Your task to perform on an android device: Go to wifi settings Image 0: 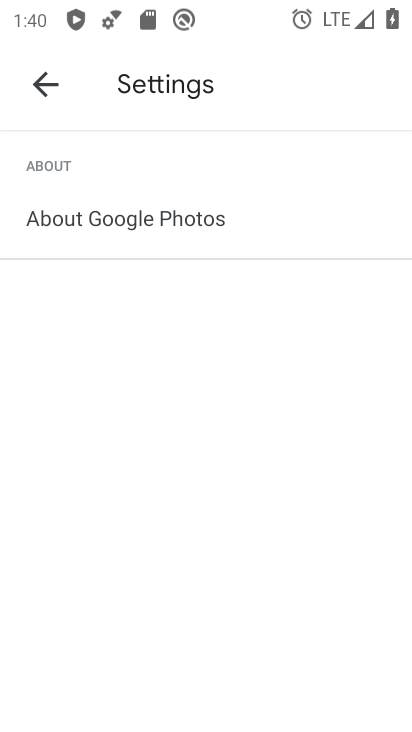
Step 0: press home button
Your task to perform on an android device: Go to wifi settings Image 1: 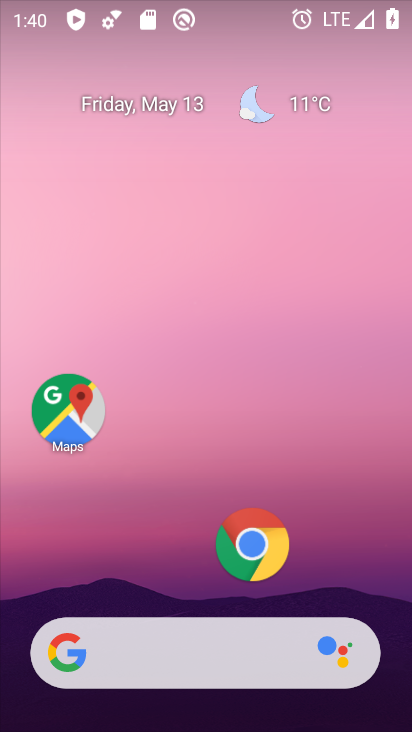
Step 1: drag from (180, 531) to (195, 181)
Your task to perform on an android device: Go to wifi settings Image 2: 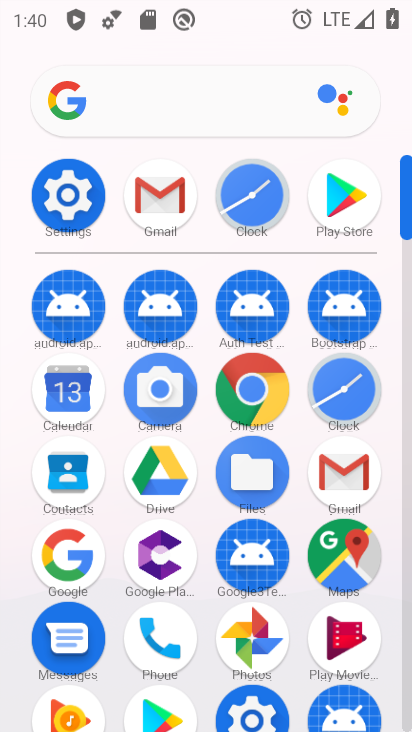
Step 2: click (69, 188)
Your task to perform on an android device: Go to wifi settings Image 3: 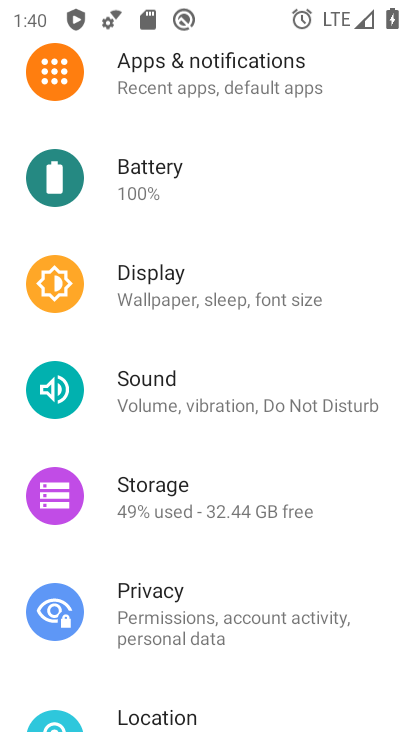
Step 3: drag from (294, 712) to (281, 421)
Your task to perform on an android device: Go to wifi settings Image 4: 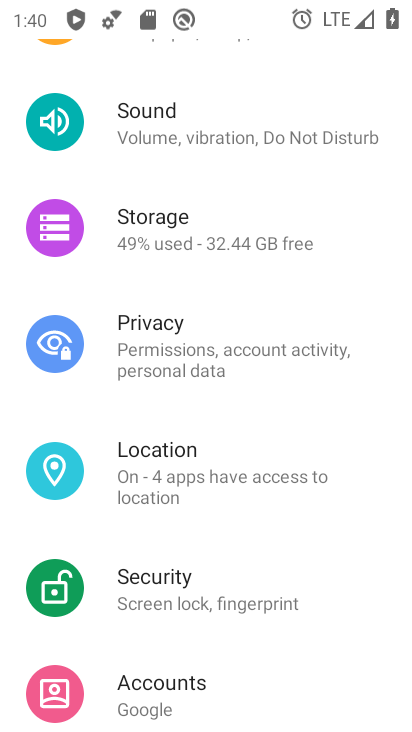
Step 4: drag from (231, 630) to (259, 302)
Your task to perform on an android device: Go to wifi settings Image 5: 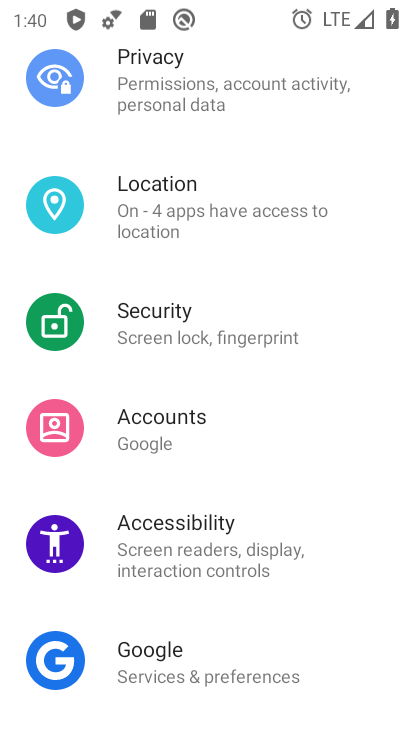
Step 5: drag from (226, 155) to (225, 646)
Your task to perform on an android device: Go to wifi settings Image 6: 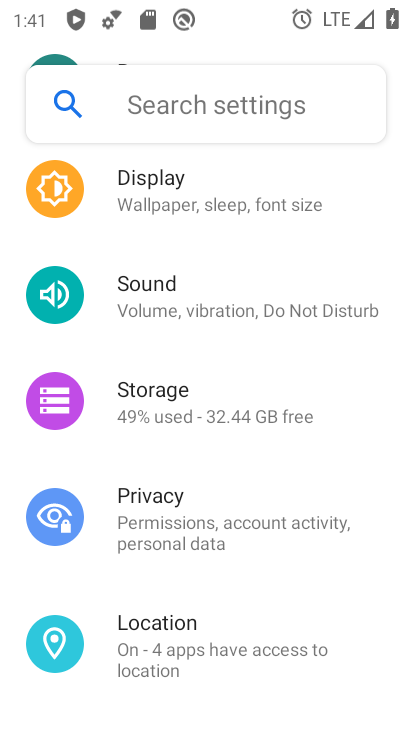
Step 6: drag from (195, 229) to (208, 596)
Your task to perform on an android device: Go to wifi settings Image 7: 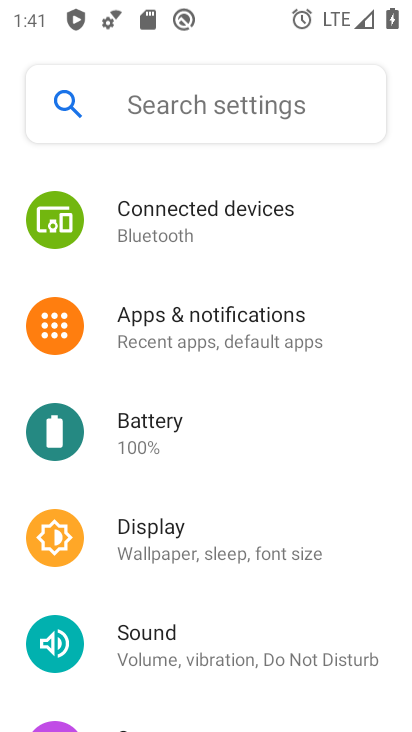
Step 7: drag from (199, 156) to (216, 432)
Your task to perform on an android device: Go to wifi settings Image 8: 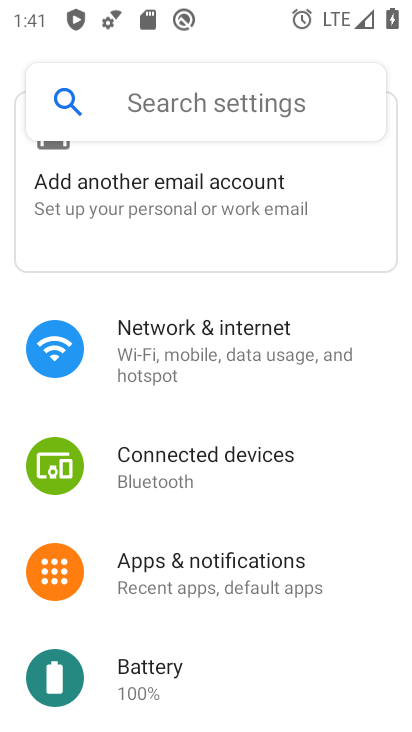
Step 8: click (174, 358)
Your task to perform on an android device: Go to wifi settings Image 9: 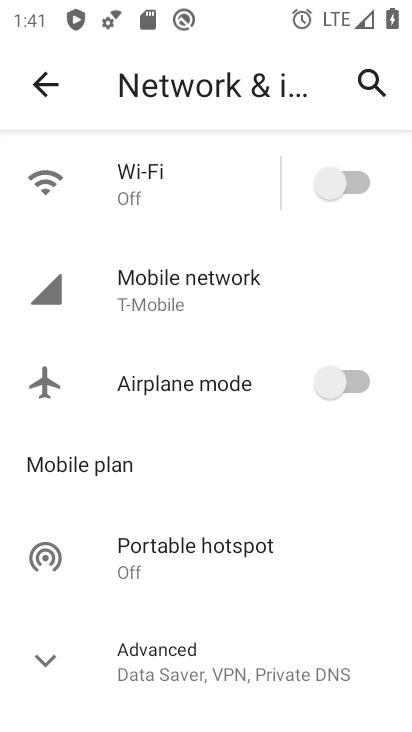
Step 9: task complete